Your task to perform on an android device: Set the phone to "Do not disturb". Image 0: 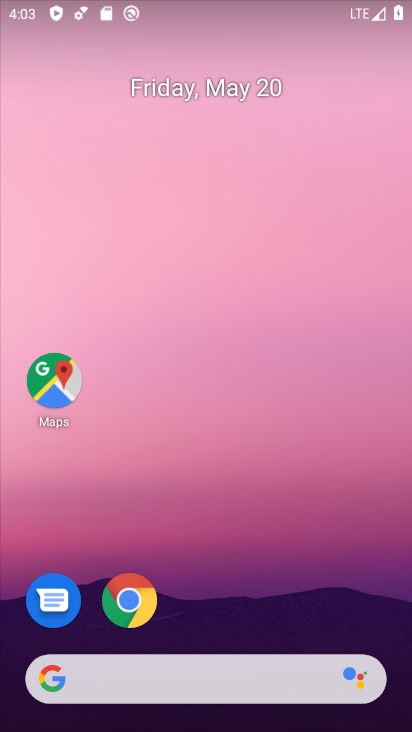
Step 0: drag from (157, 13) to (221, 467)
Your task to perform on an android device: Set the phone to "Do not disturb". Image 1: 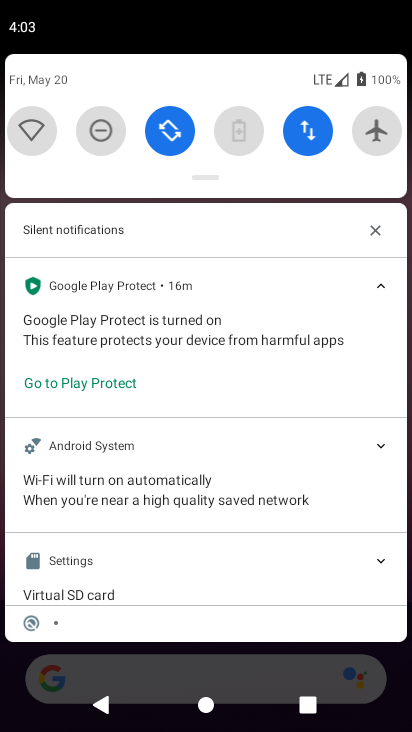
Step 1: click (101, 127)
Your task to perform on an android device: Set the phone to "Do not disturb". Image 2: 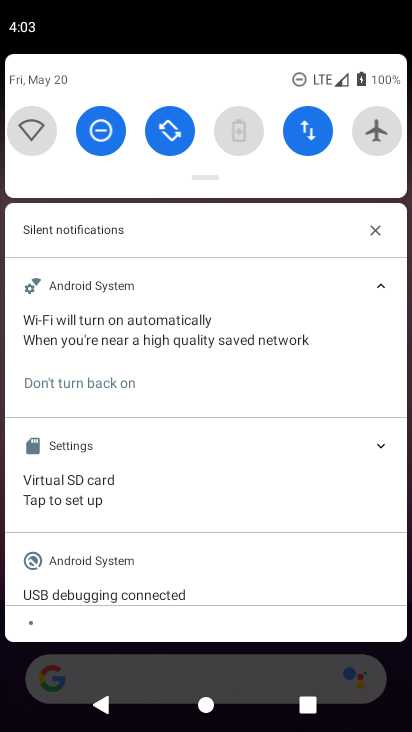
Step 2: task complete